Your task to perform on an android device: open app "Microsoft Authenticator" (install if not already installed) and go to login screen Image 0: 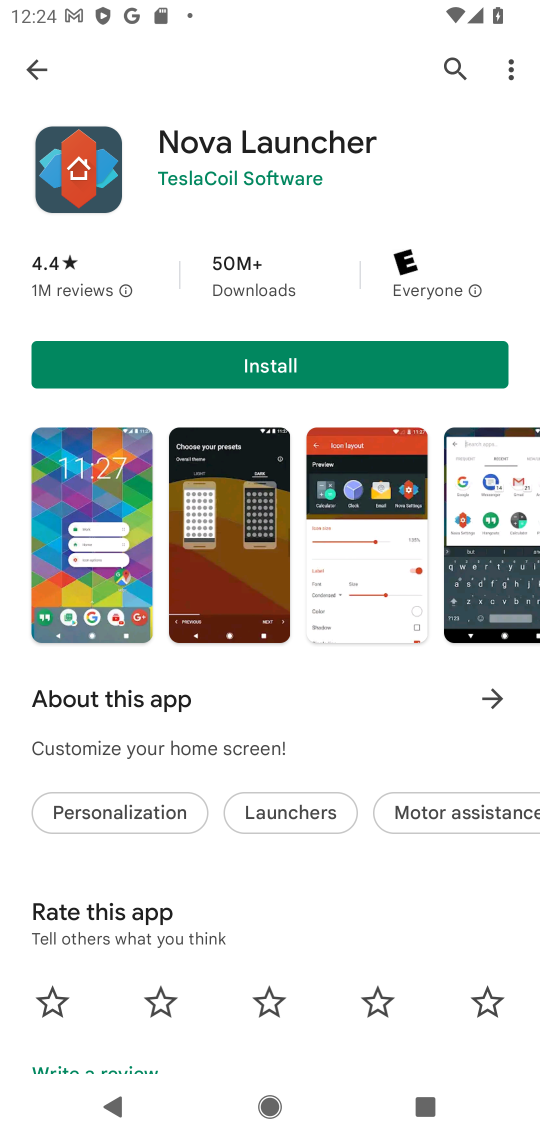
Step 0: press home button
Your task to perform on an android device: open app "Microsoft Authenticator" (install if not already installed) and go to login screen Image 1: 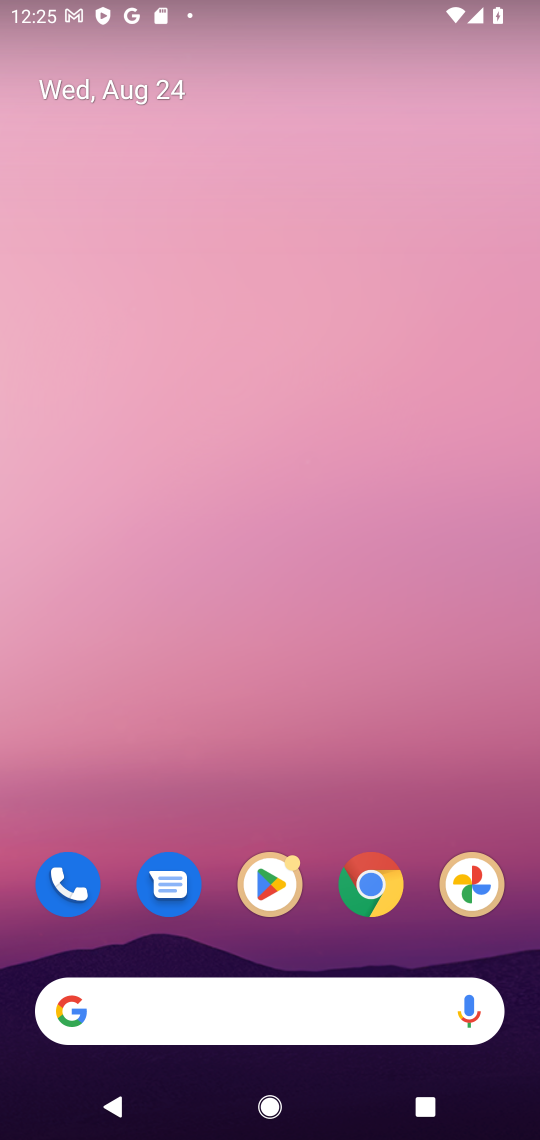
Step 1: drag from (282, 989) to (315, 250)
Your task to perform on an android device: open app "Microsoft Authenticator" (install if not already installed) and go to login screen Image 2: 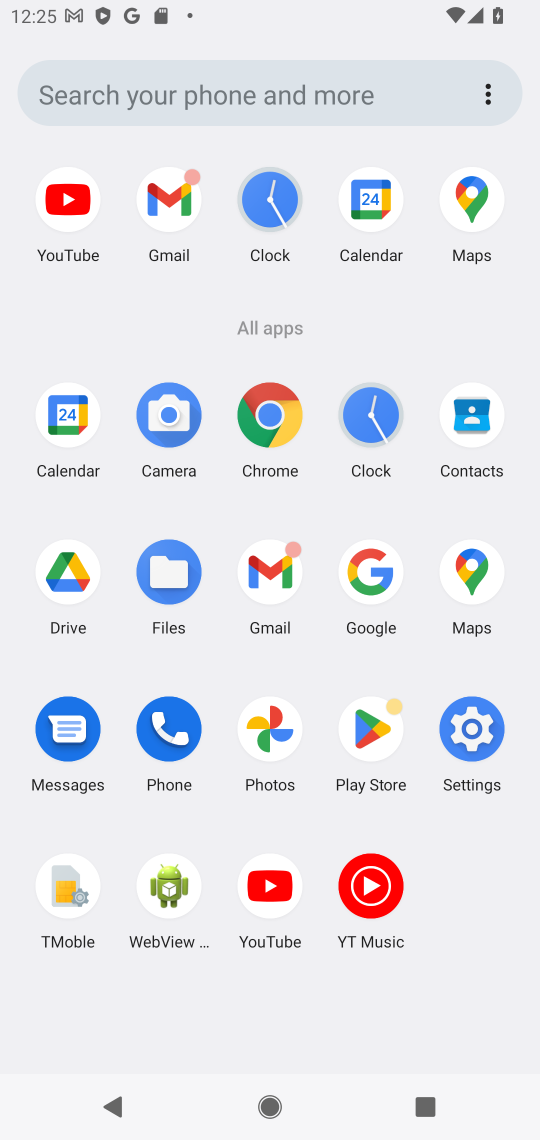
Step 2: click (360, 717)
Your task to perform on an android device: open app "Microsoft Authenticator" (install if not already installed) and go to login screen Image 3: 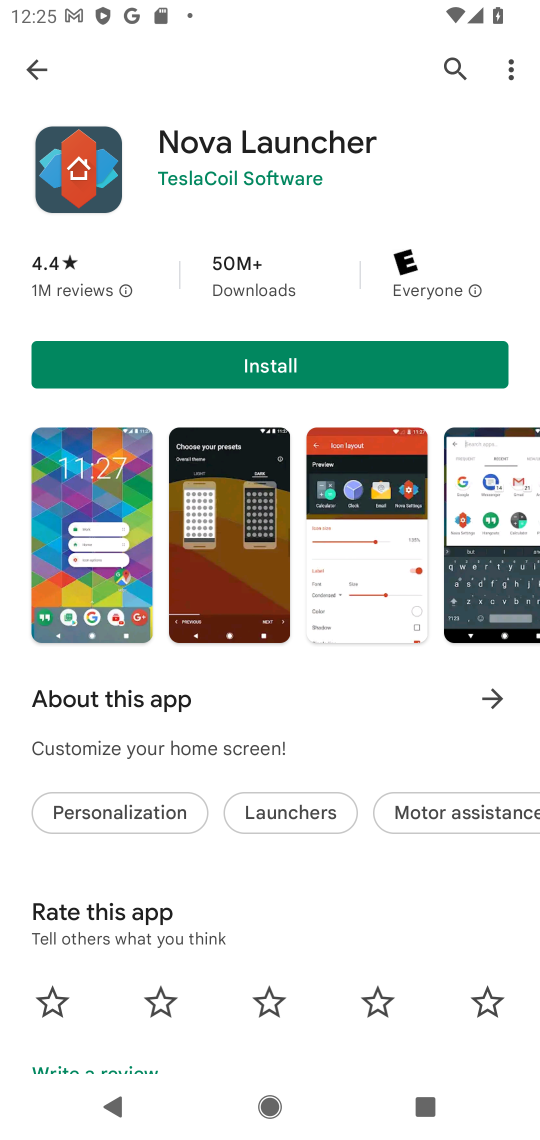
Step 3: press back button
Your task to perform on an android device: open app "Microsoft Authenticator" (install if not already installed) and go to login screen Image 4: 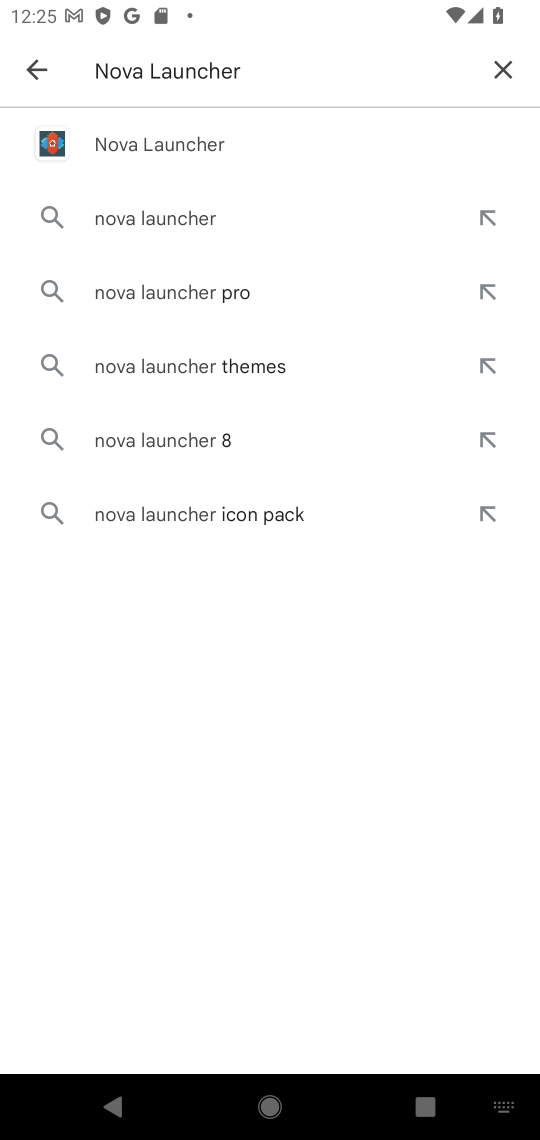
Step 4: press back button
Your task to perform on an android device: open app "Microsoft Authenticator" (install if not already installed) and go to login screen Image 5: 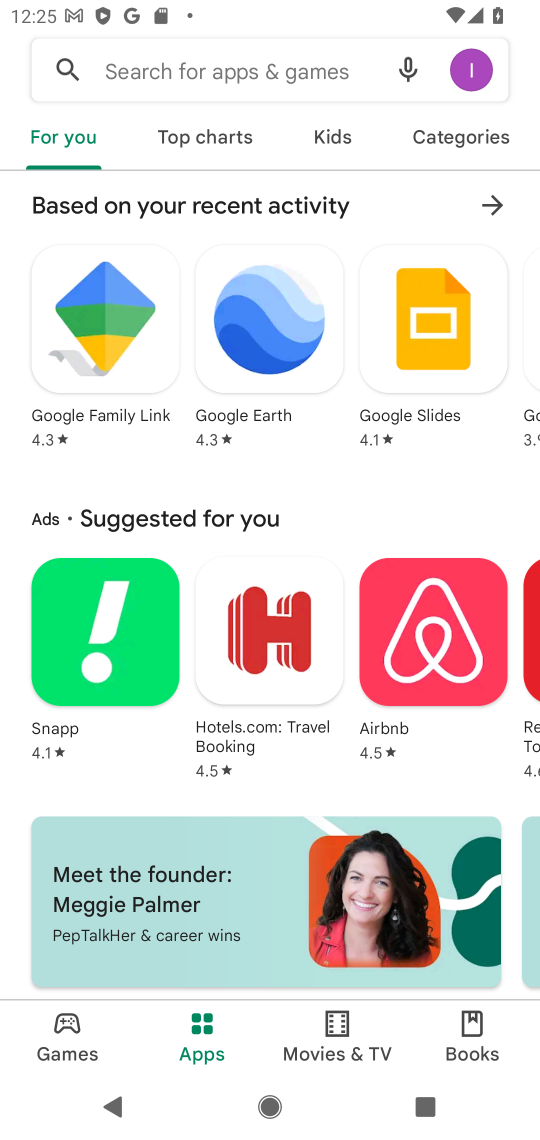
Step 5: click (266, 68)
Your task to perform on an android device: open app "Microsoft Authenticator" (install if not already installed) and go to login screen Image 6: 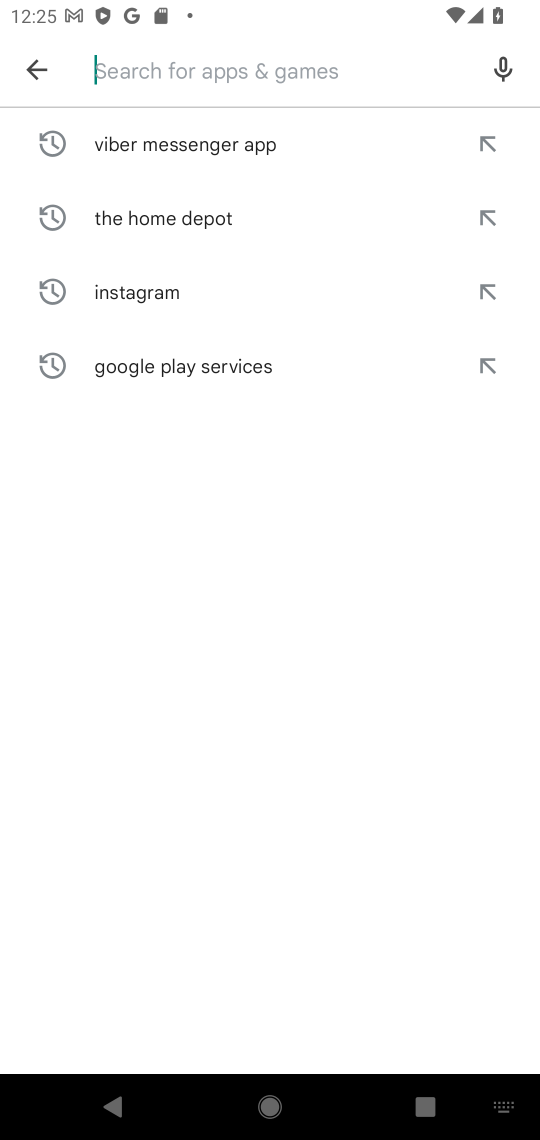
Step 6: type "Microsoft Authenticator"
Your task to perform on an android device: open app "Microsoft Authenticator" (install if not already installed) and go to login screen Image 7: 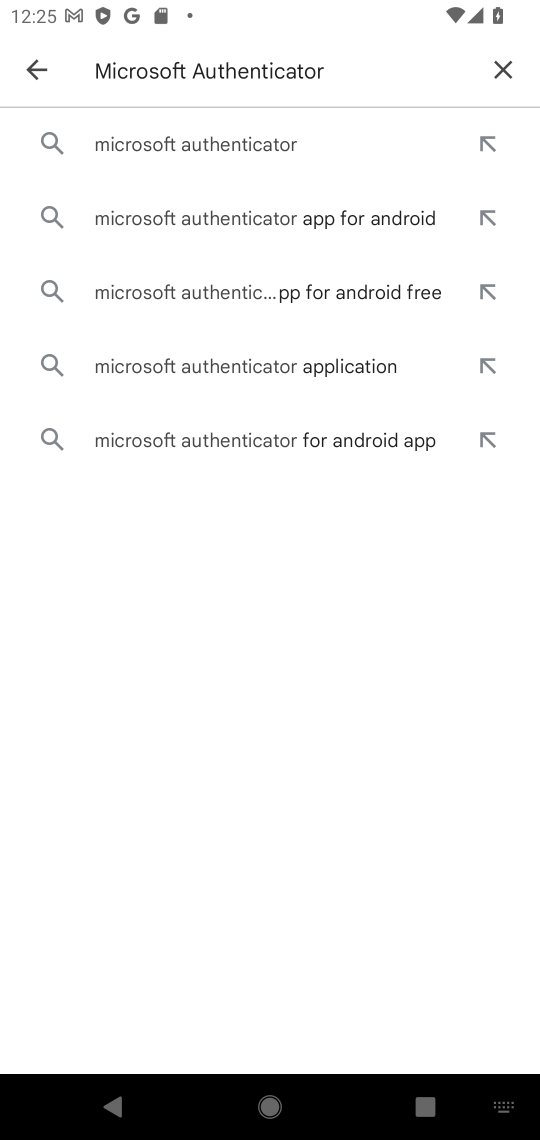
Step 7: click (195, 141)
Your task to perform on an android device: open app "Microsoft Authenticator" (install if not already installed) and go to login screen Image 8: 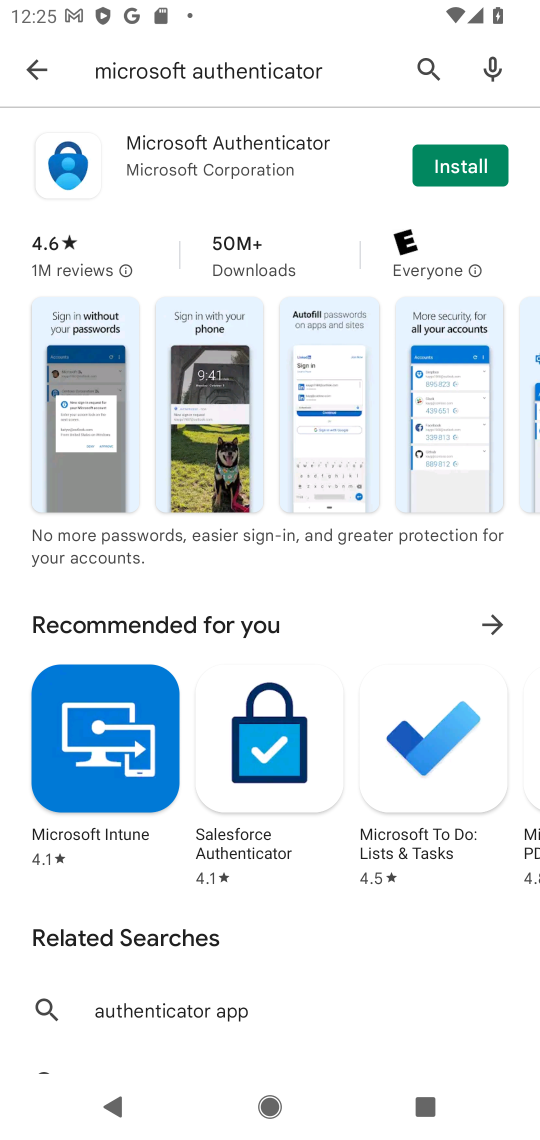
Step 8: click (471, 163)
Your task to perform on an android device: open app "Microsoft Authenticator" (install if not already installed) and go to login screen Image 9: 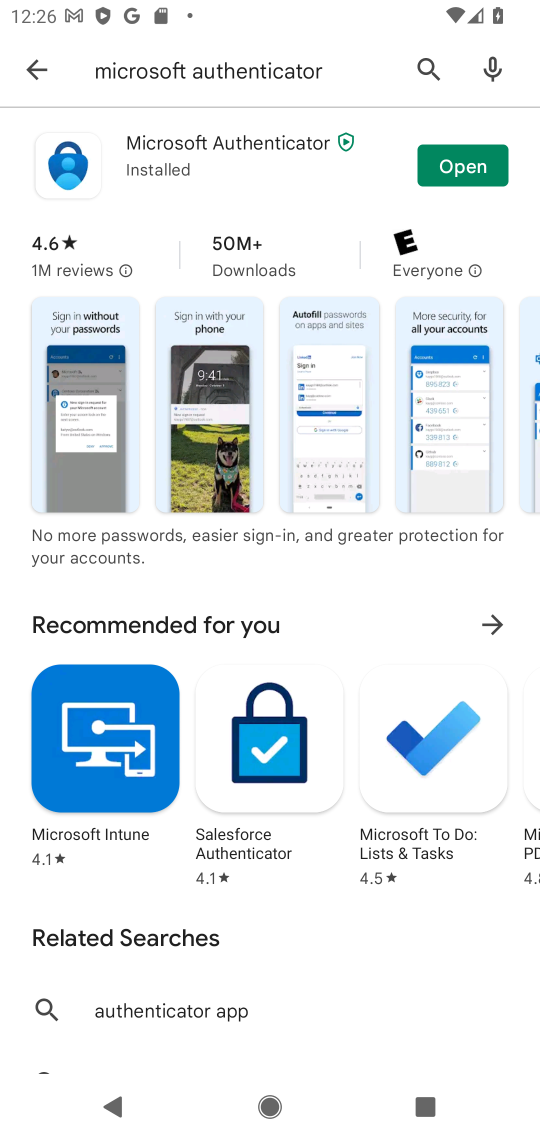
Step 9: click (467, 164)
Your task to perform on an android device: open app "Microsoft Authenticator" (install if not already installed) and go to login screen Image 10: 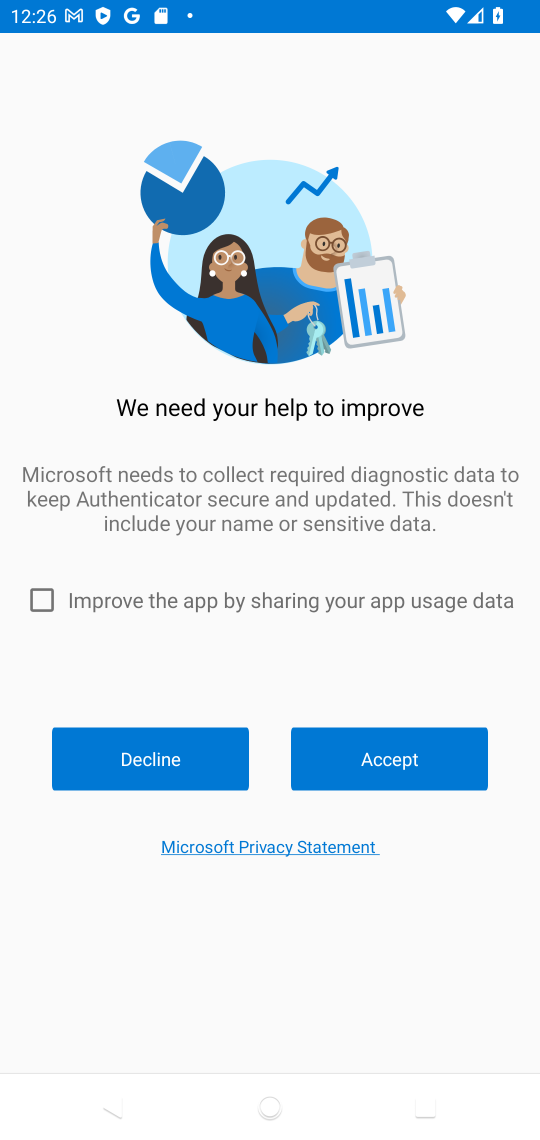
Step 10: drag from (253, 960) to (415, 504)
Your task to perform on an android device: open app "Microsoft Authenticator" (install if not already installed) and go to login screen Image 11: 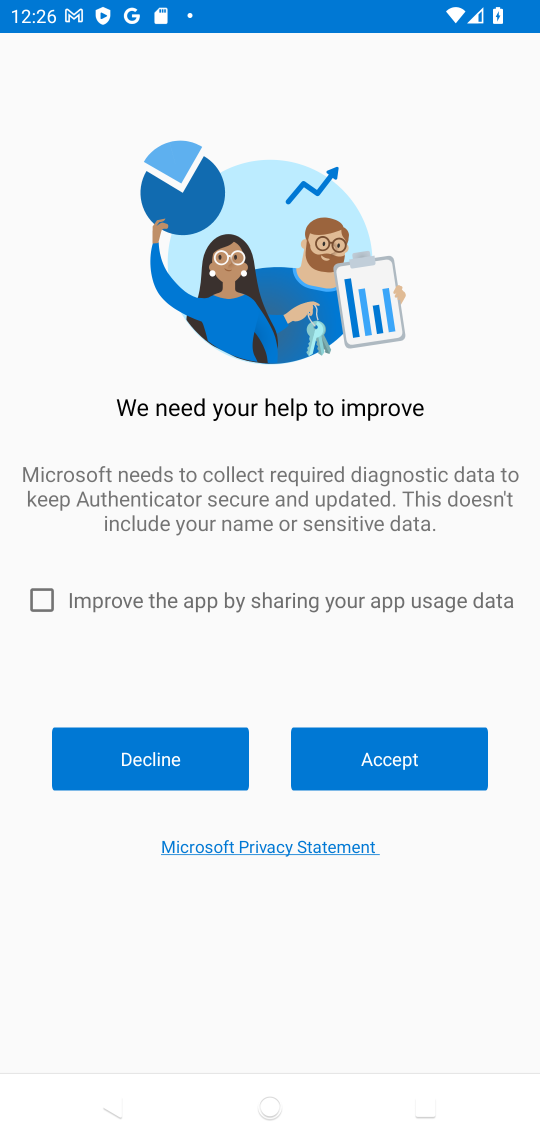
Step 11: click (394, 756)
Your task to perform on an android device: open app "Microsoft Authenticator" (install if not already installed) and go to login screen Image 12: 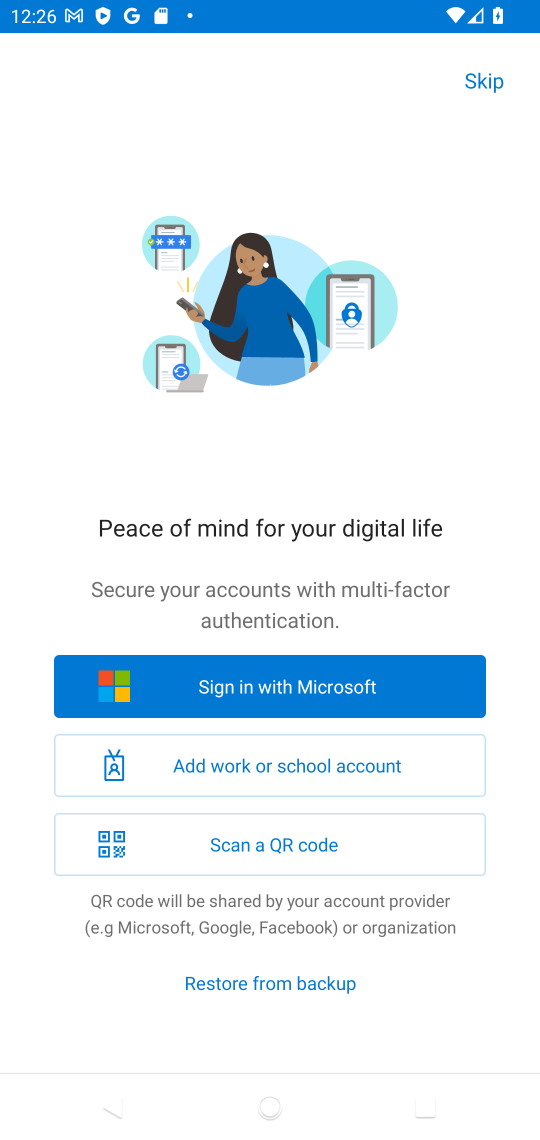
Step 12: click (193, 681)
Your task to perform on an android device: open app "Microsoft Authenticator" (install if not already installed) and go to login screen Image 13: 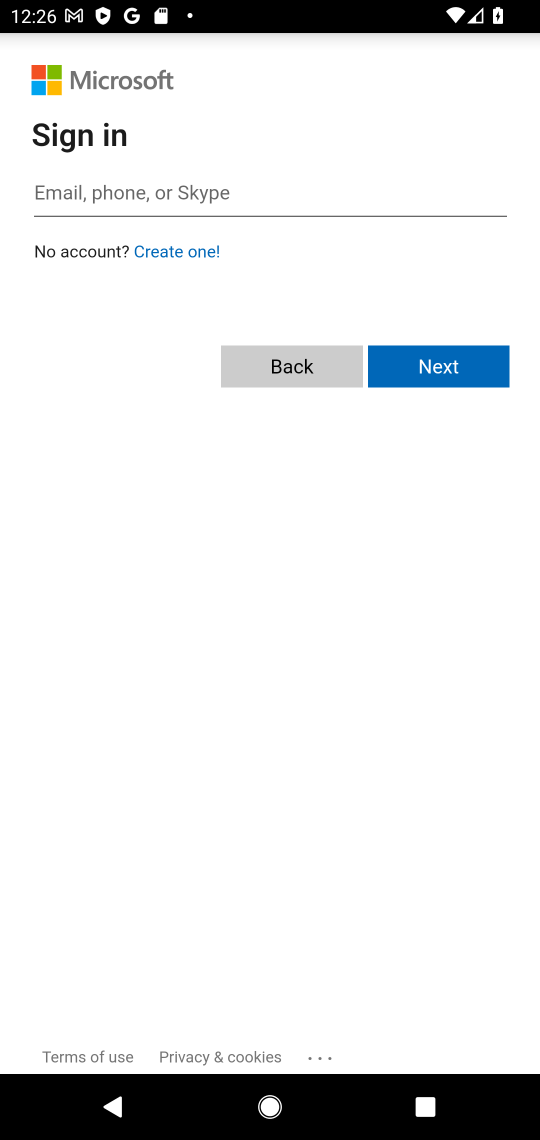
Step 13: task complete